Your task to perform on an android device: Open Chrome and go to settings Image 0: 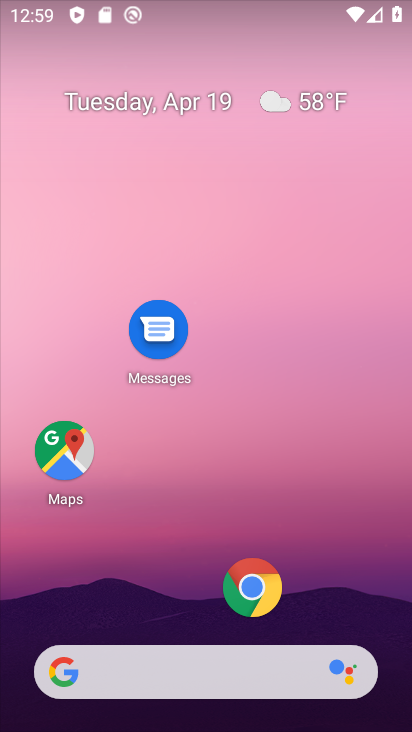
Step 0: click (250, 594)
Your task to perform on an android device: Open Chrome and go to settings Image 1: 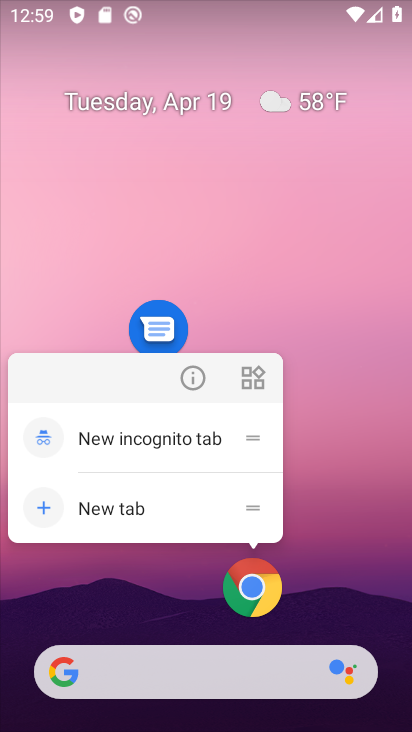
Step 1: click (255, 586)
Your task to perform on an android device: Open Chrome and go to settings Image 2: 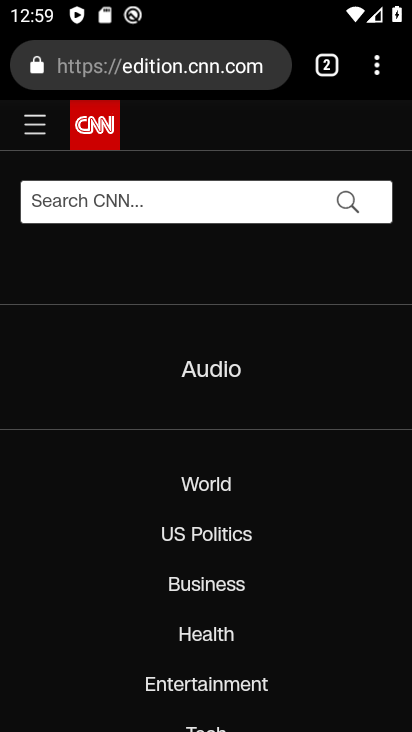
Step 2: click (373, 64)
Your task to perform on an android device: Open Chrome and go to settings Image 3: 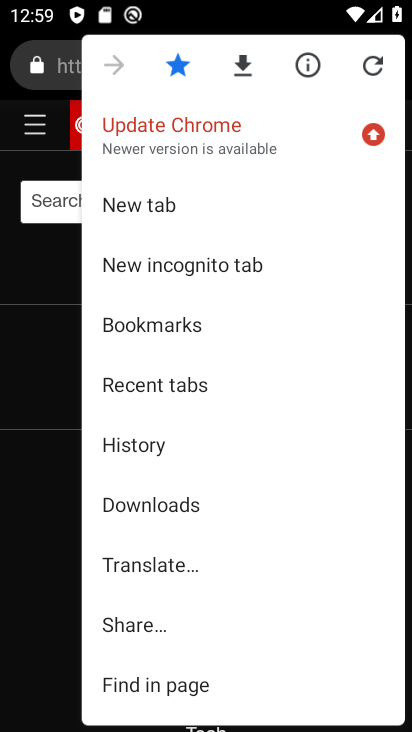
Step 3: drag from (216, 566) to (241, 255)
Your task to perform on an android device: Open Chrome and go to settings Image 4: 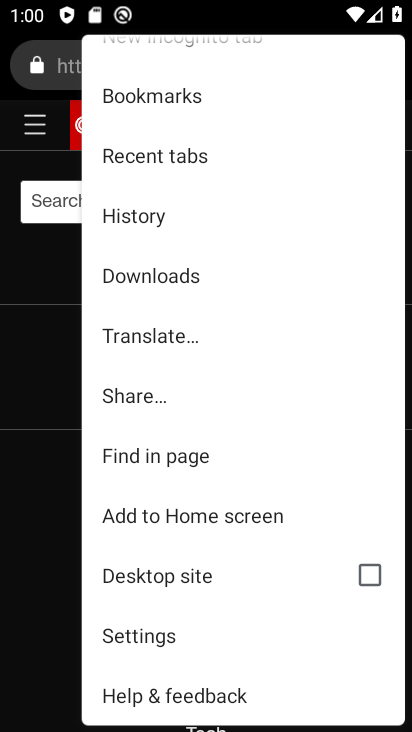
Step 4: click (169, 636)
Your task to perform on an android device: Open Chrome and go to settings Image 5: 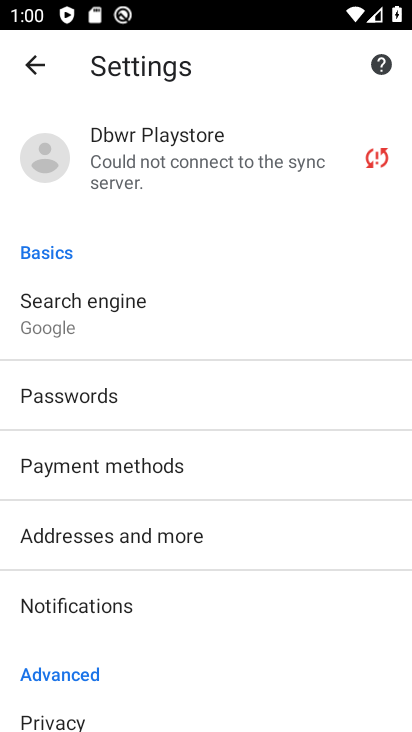
Step 5: task complete